Your task to perform on an android device: Turn off the flashlight Image 0: 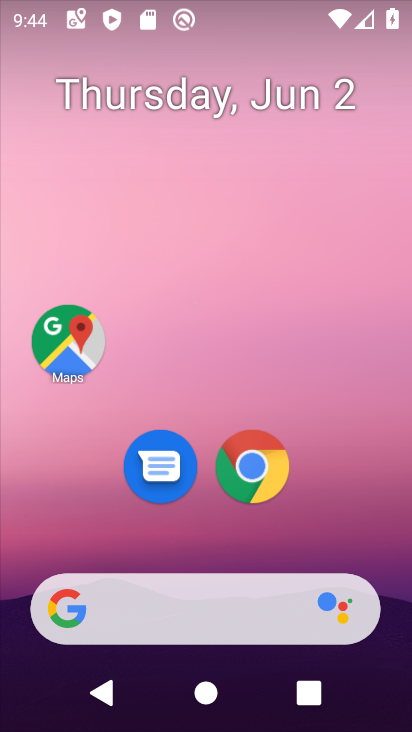
Step 0: drag from (306, 458) to (302, 29)
Your task to perform on an android device: Turn off the flashlight Image 1: 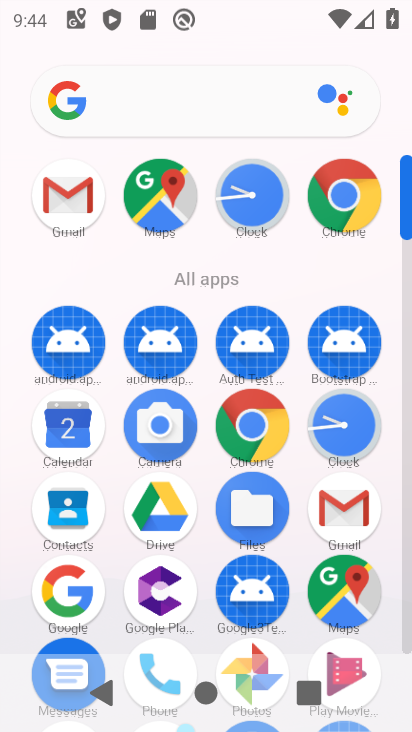
Step 1: drag from (202, 545) to (224, 90)
Your task to perform on an android device: Turn off the flashlight Image 2: 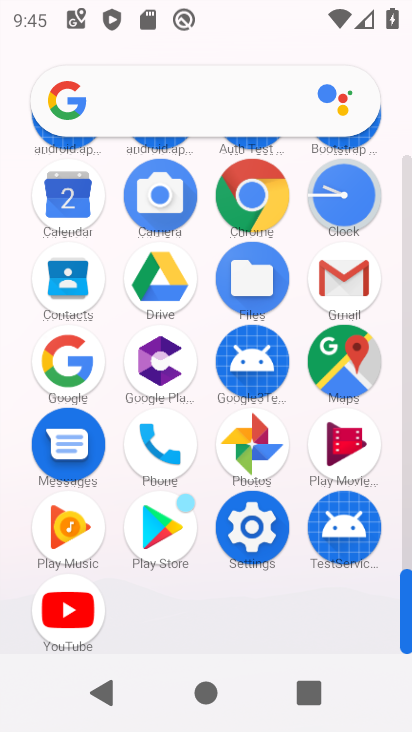
Step 2: click (257, 534)
Your task to perform on an android device: Turn off the flashlight Image 3: 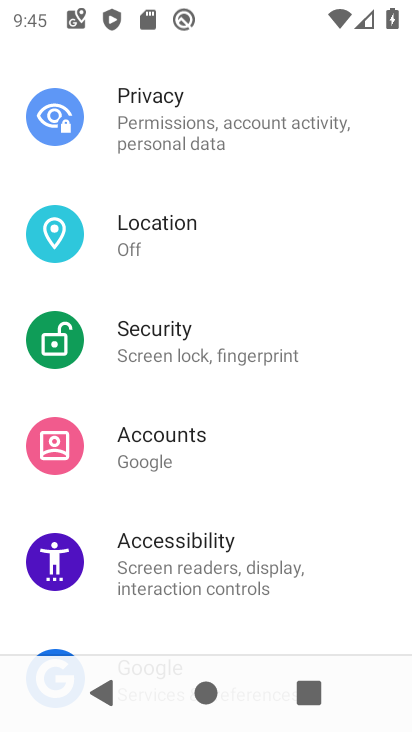
Step 3: task complete